Your task to perform on an android device: Clear the cart on target. Image 0: 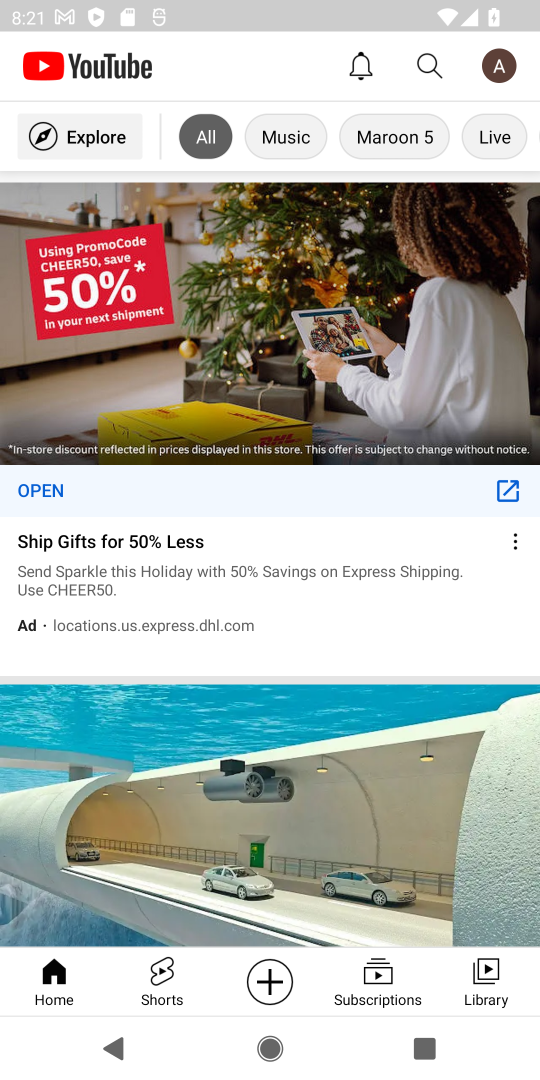
Step 0: press home button
Your task to perform on an android device: Clear the cart on target. Image 1: 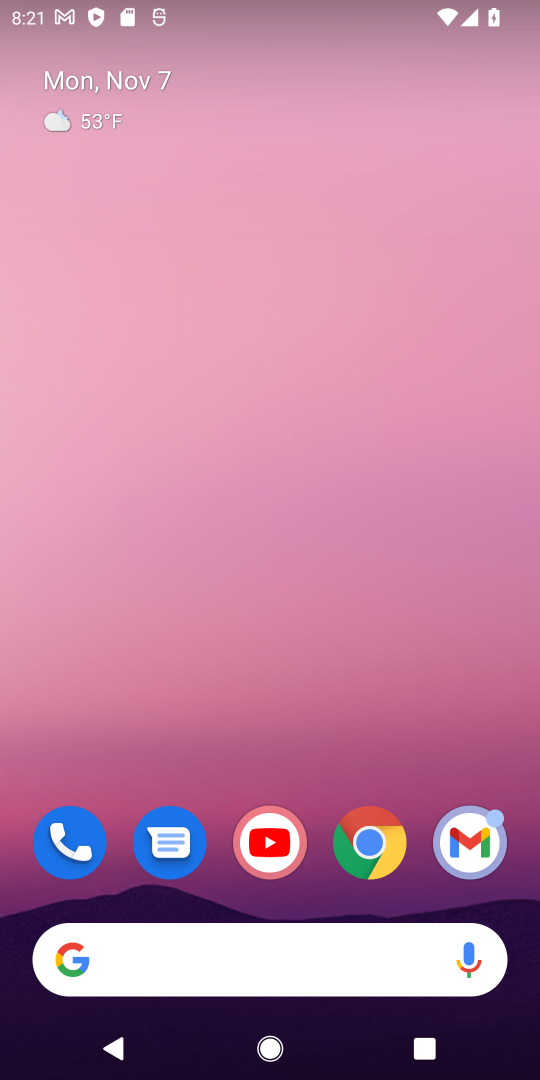
Step 1: click (365, 844)
Your task to perform on an android device: Clear the cart on target. Image 2: 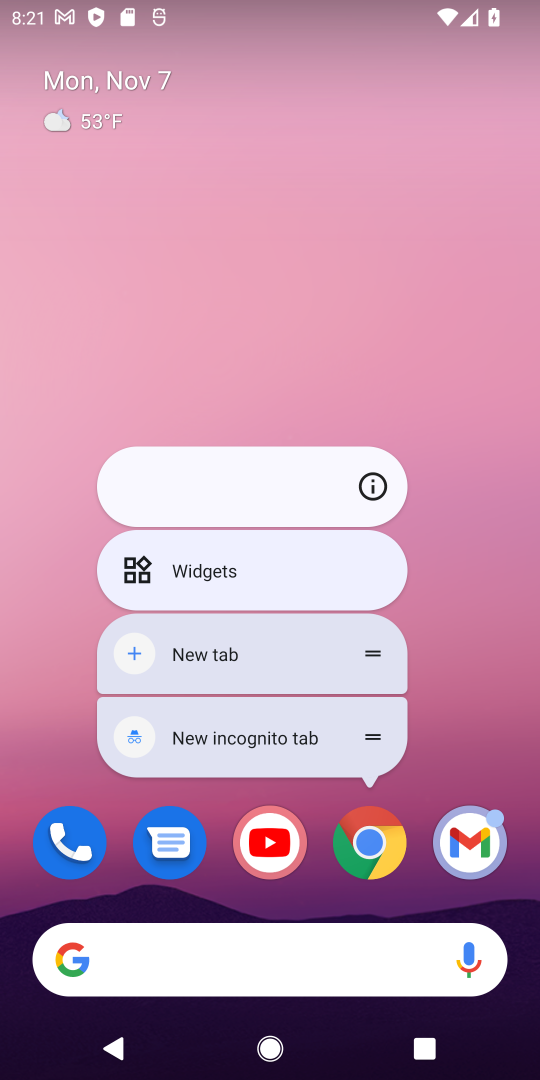
Step 2: click (375, 839)
Your task to perform on an android device: Clear the cart on target. Image 3: 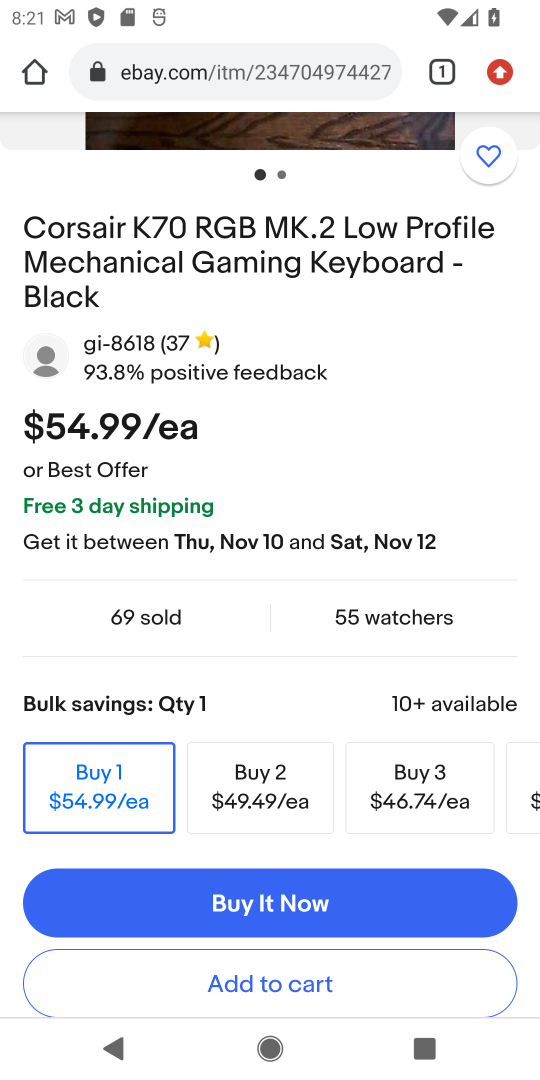
Step 3: click (292, 72)
Your task to perform on an android device: Clear the cart on target. Image 4: 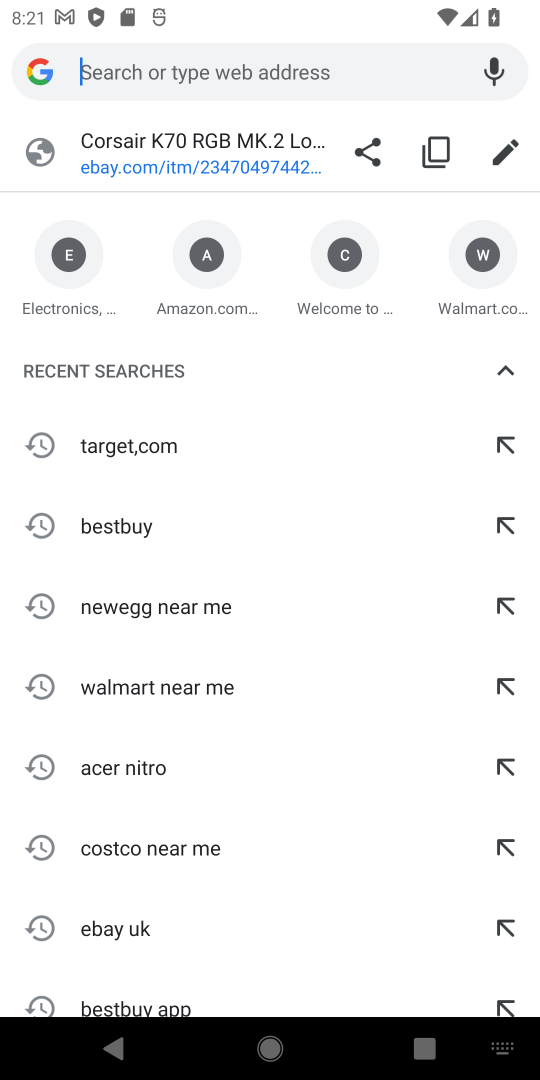
Step 4: click (129, 443)
Your task to perform on an android device: Clear the cart on target. Image 5: 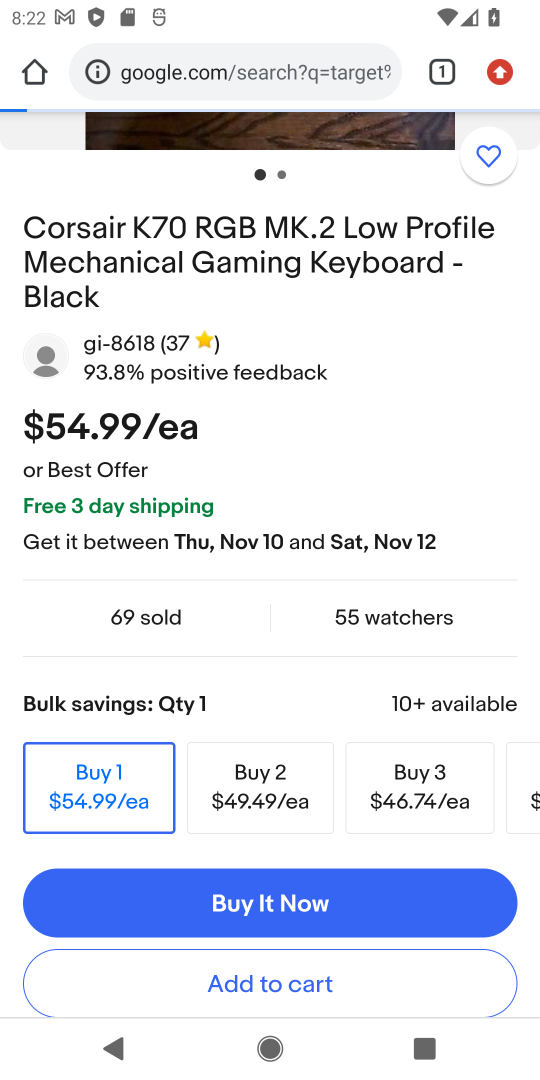
Step 5: click (291, 69)
Your task to perform on an android device: Clear the cart on target. Image 6: 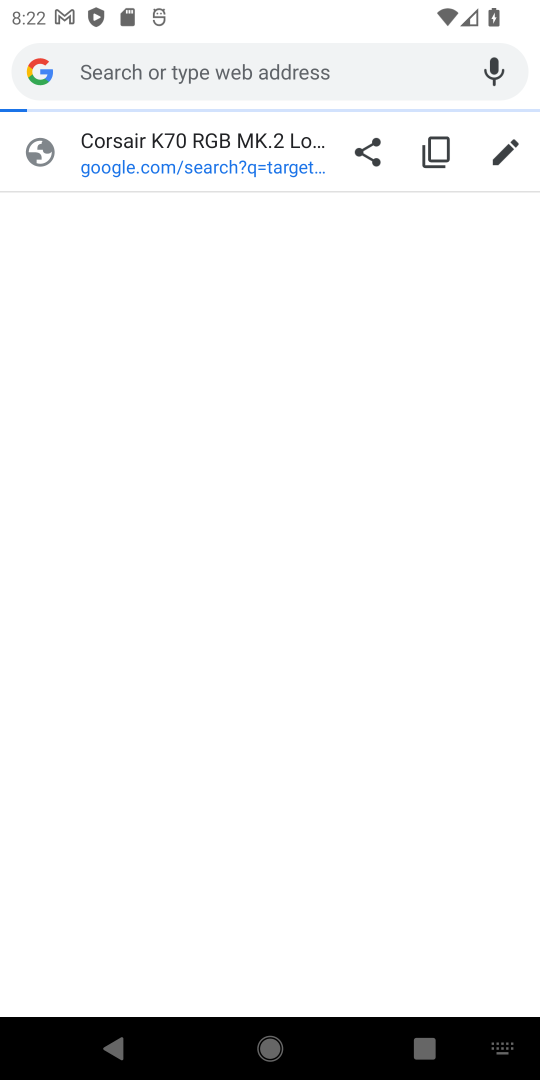
Step 6: type " target"
Your task to perform on an android device: Clear the cart on target. Image 7: 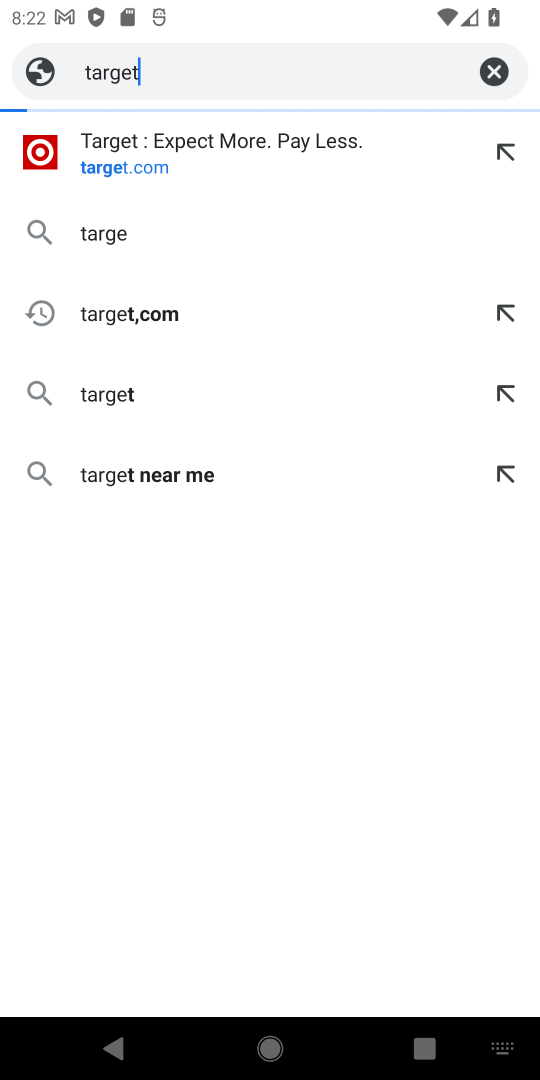
Step 7: press enter
Your task to perform on an android device: Clear the cart on target. Image 8: 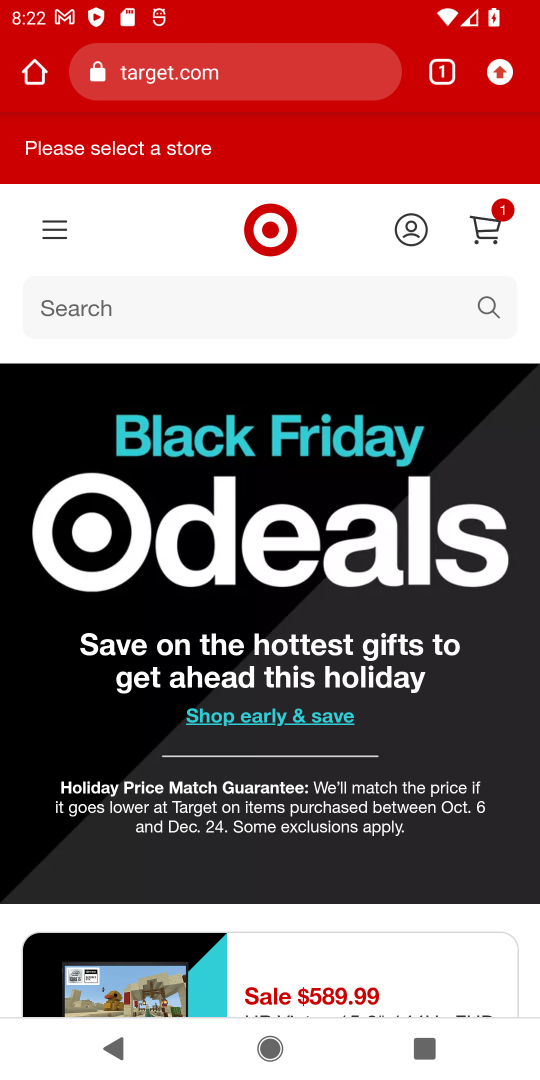
Step 8: click (488, 218)
Your task to perform on an android device: Clear the cart on target. Image 9: 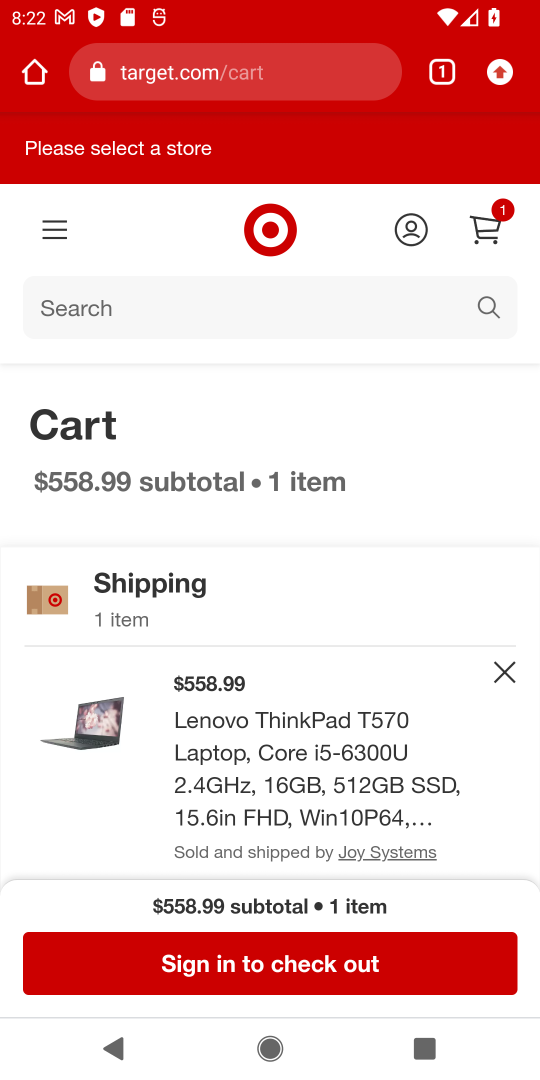
Step 9: click (501, 667)
Your task to perform on an android device: Clear the cart on target. Image 10: 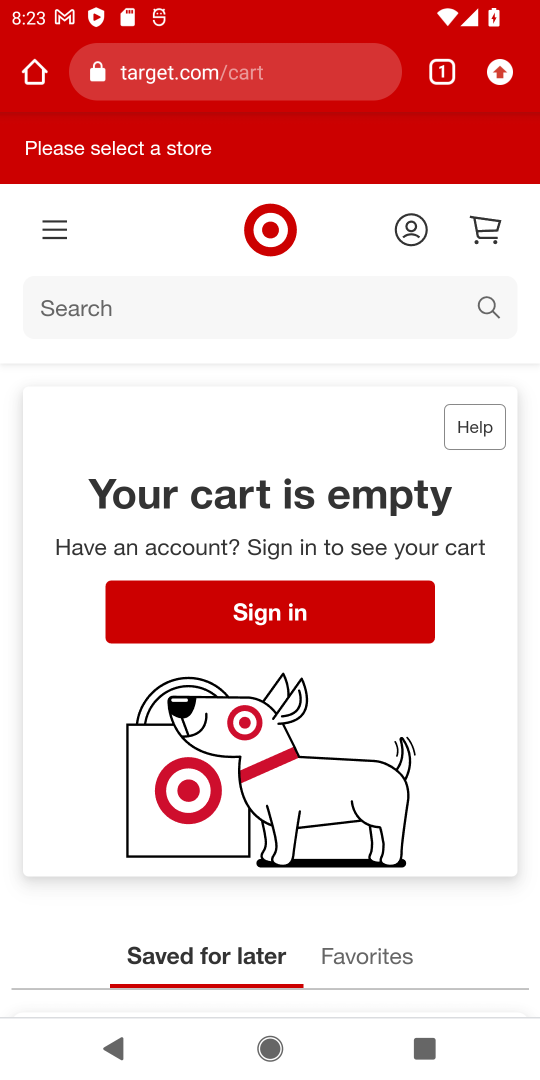
Step 10: task complete